Your task to perform on an android device: Open Maps and search for coffee Image 0: 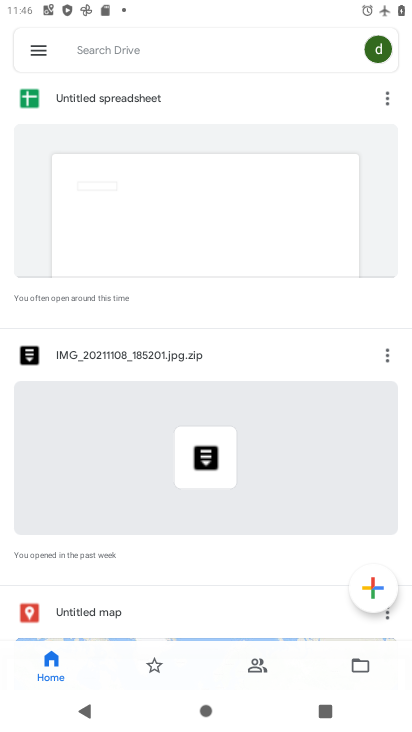
Step 0: press home button
Your task to perform on an android device: Open Maps and search for coffee Image 1: 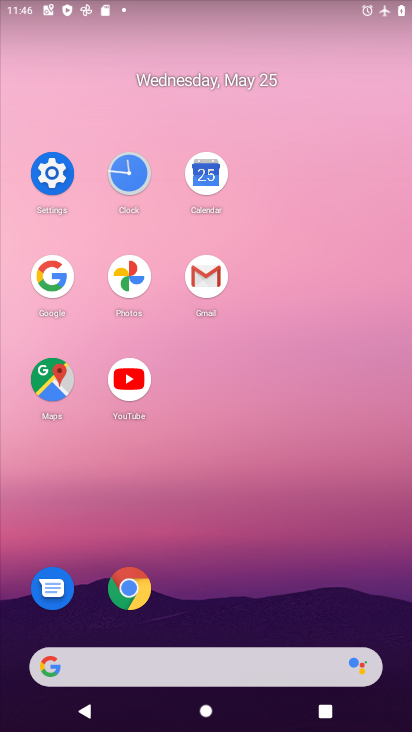
Step 1: click (46, 393)
Your task to perform on an android device: Open Maps and search for coffee Image 2: 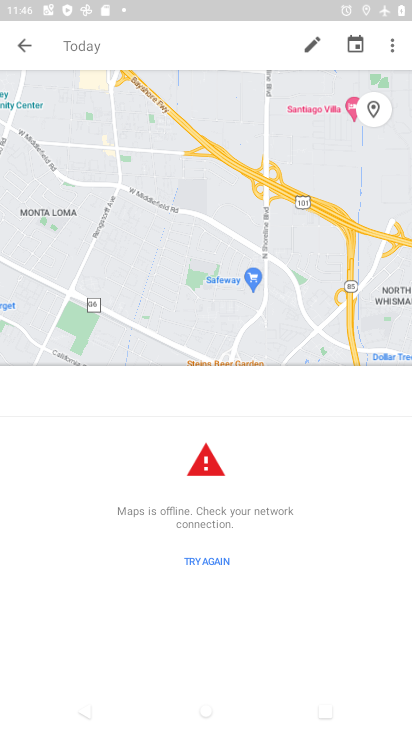
Step 2: click (27, 40)
Your task to perform on an android device: Open Maps and search for coffee Image 3: 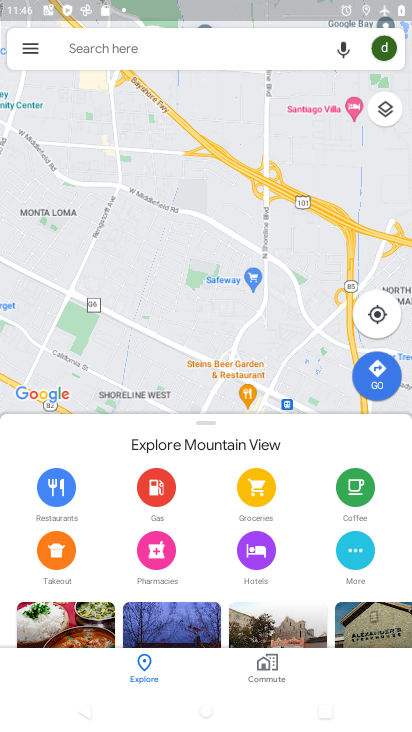
Step 3: click (150, 56)
Your task to perform on an android device: Open Maps and search for coffee Image 4: 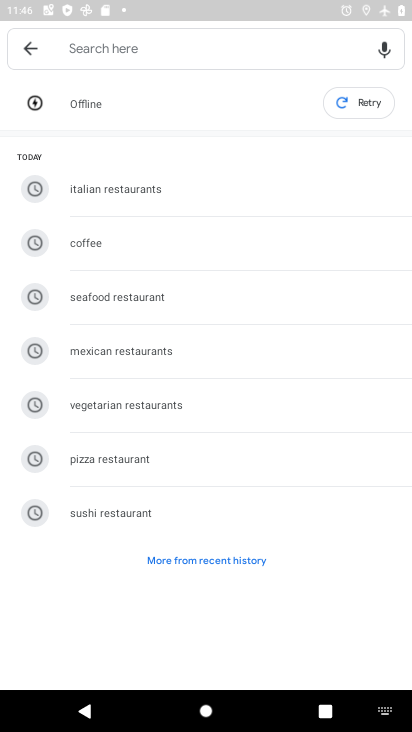
Step 4: click (122, 250)
Your task to perform on an android device: Open Maps and search for coffee Image 5: 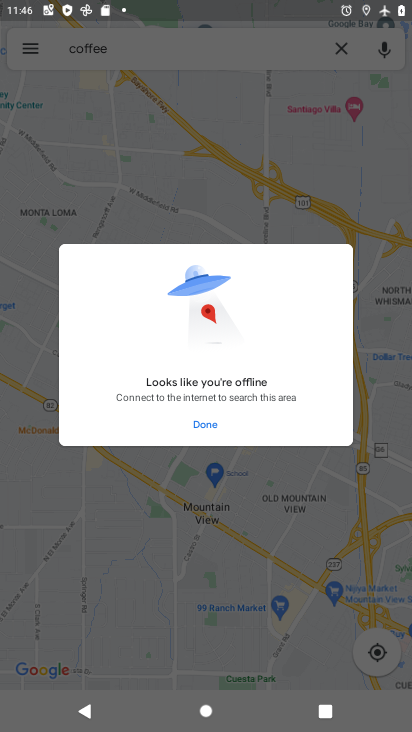
Step 5: task complete